Your task to perform on an android device: Search for razer huntsman on newegg, select the first entry, add it to the cart, then select checkout. Image 0: 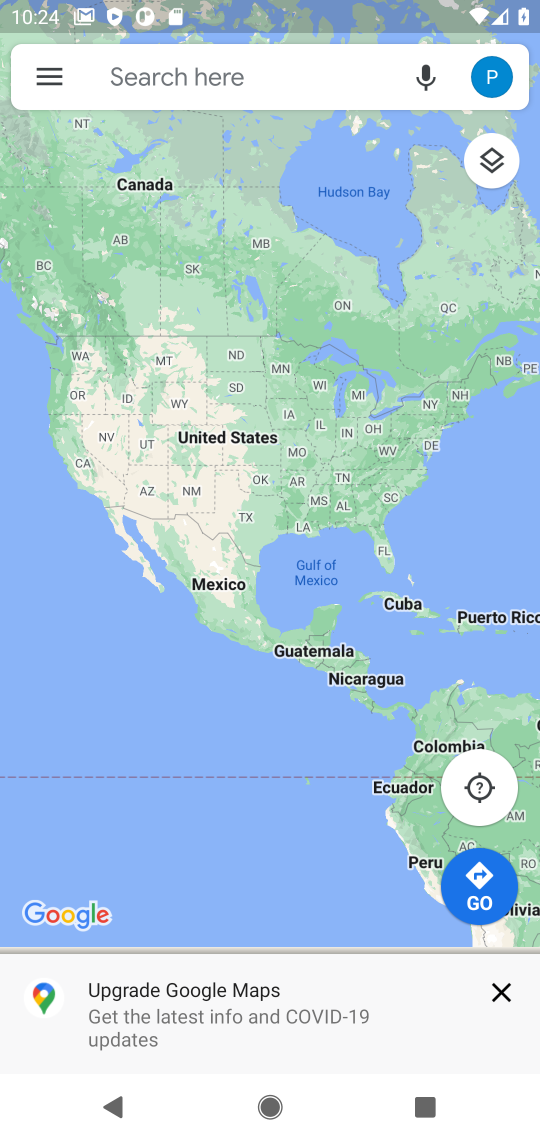
Step 0: press home button
Your task to perform on an android device: Search for razer huntsman on newegg, select the first entry, add it to the cart, then select checkout. Image 1: 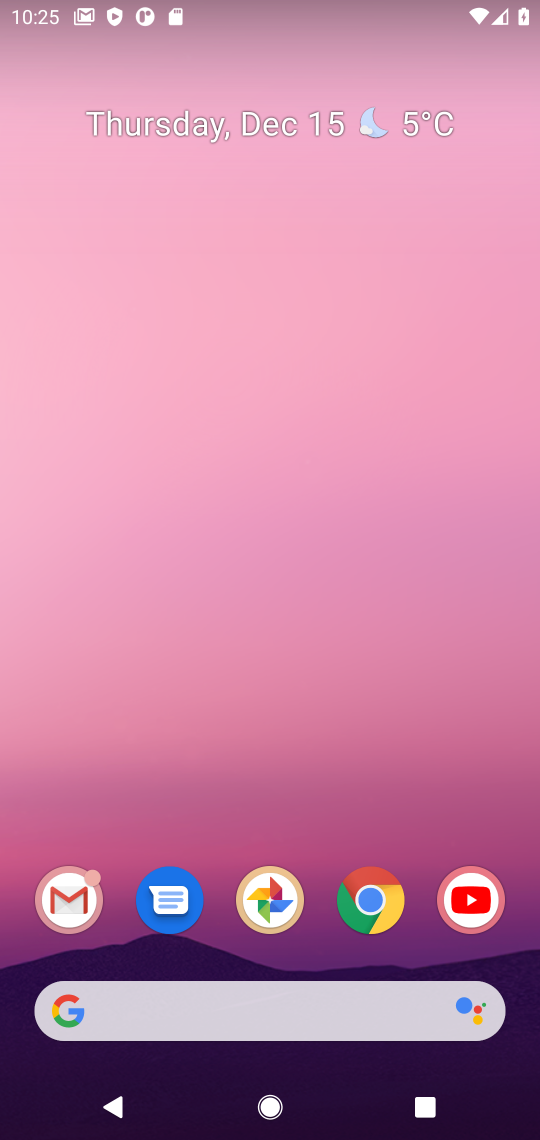
Step 1: click (363, 886)
Your task to perform on an android device: Search for razer huntsman on newegg, select the first entry, add it to the cart, then select checkout. Image 2: 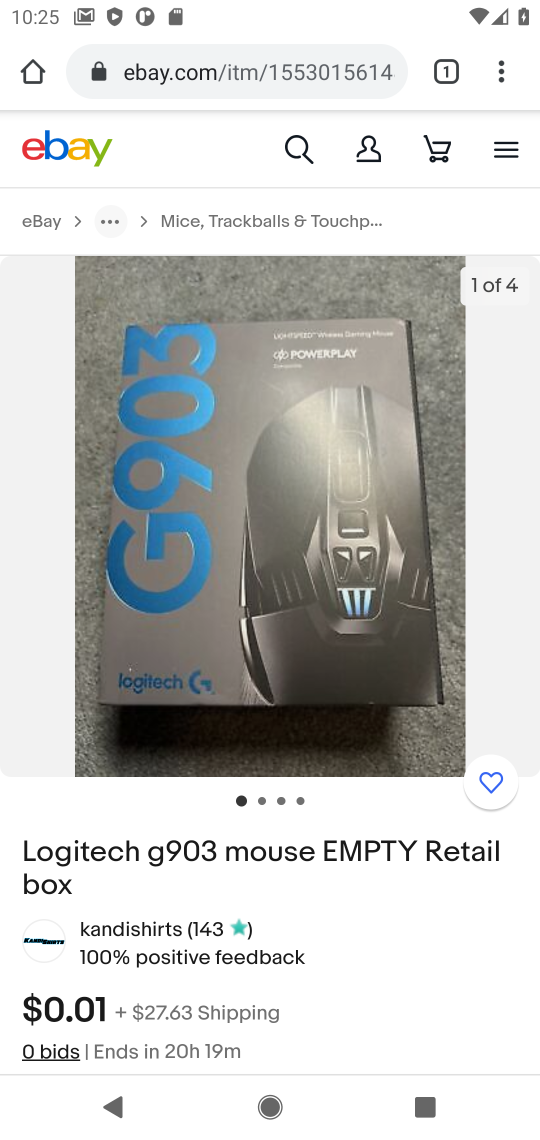
Step 2: click (173, 81)
Your task to perform on an android device: Search for razer huntsman on newegg, select the first entry, add it to the cart, then select checkout. Image 3: 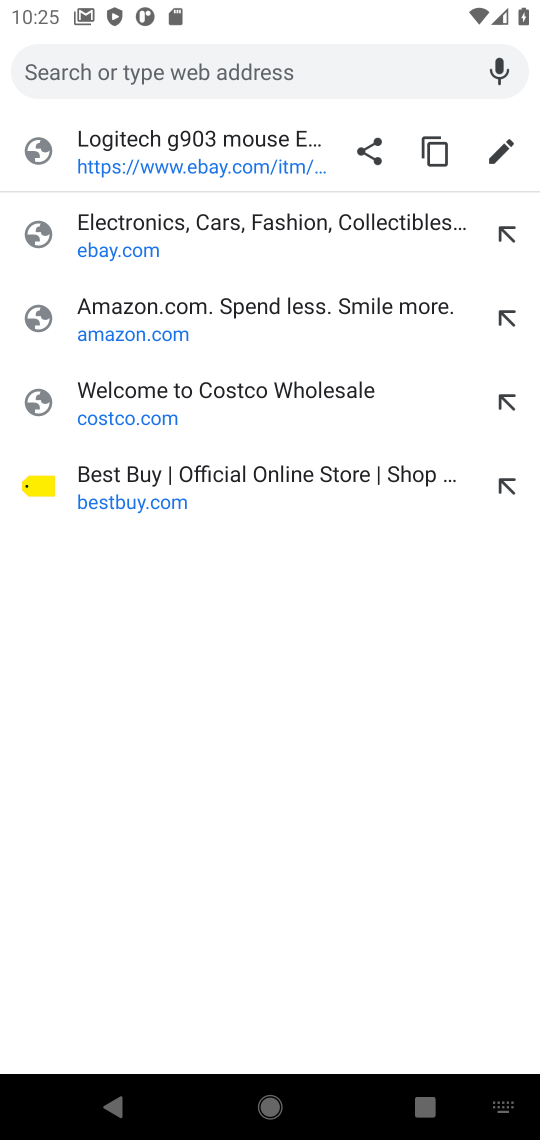
Step 3: type "newegg"
Your task to perform on an android device: Search for razer huntsman on newegg, select the first entry, add it to the cart, then select checkout. Image 4: 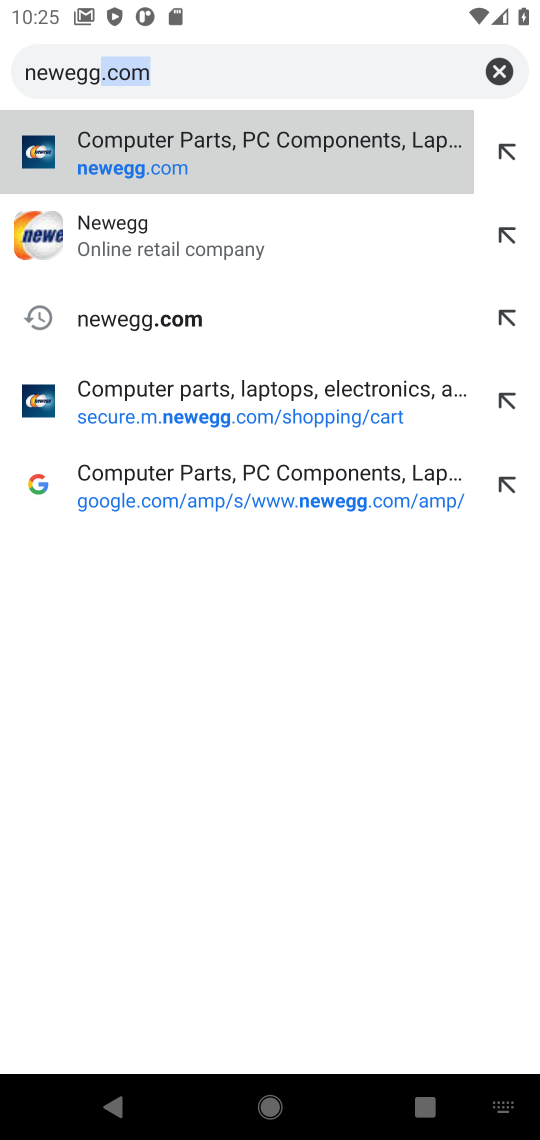
Step 4: click (154, 151)
Your task to perform on an android device: Search for razer huntsman on newegg, select the first entry, add it to the cart, then select checkout. Image 5: 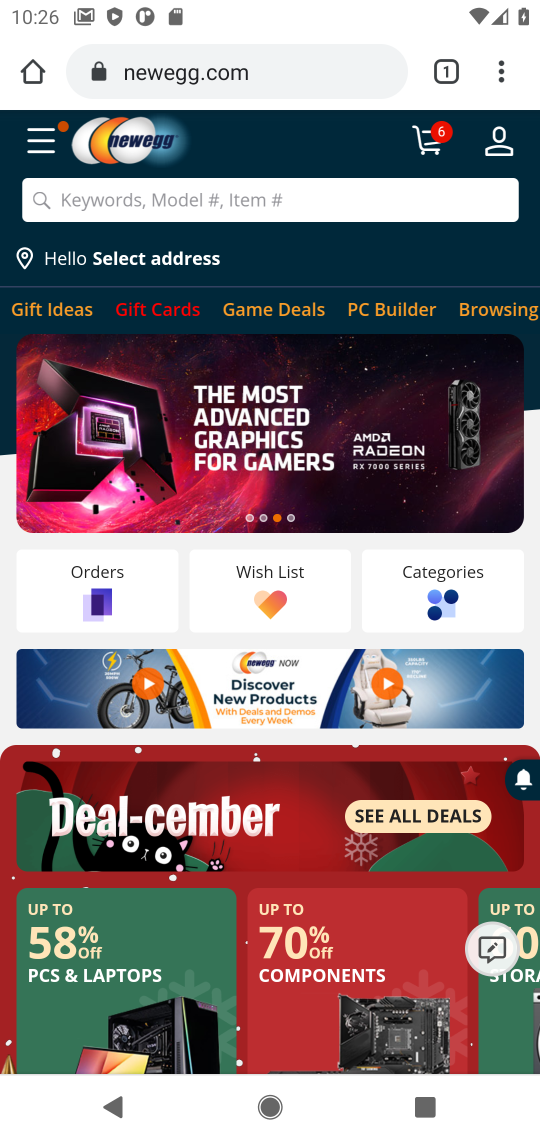
Step 5: click (175, 209)
Your task to perform on an android device: Search for razer huntsman on newegg, select the first entry, add it to the cart, then select checkout. Image 6: 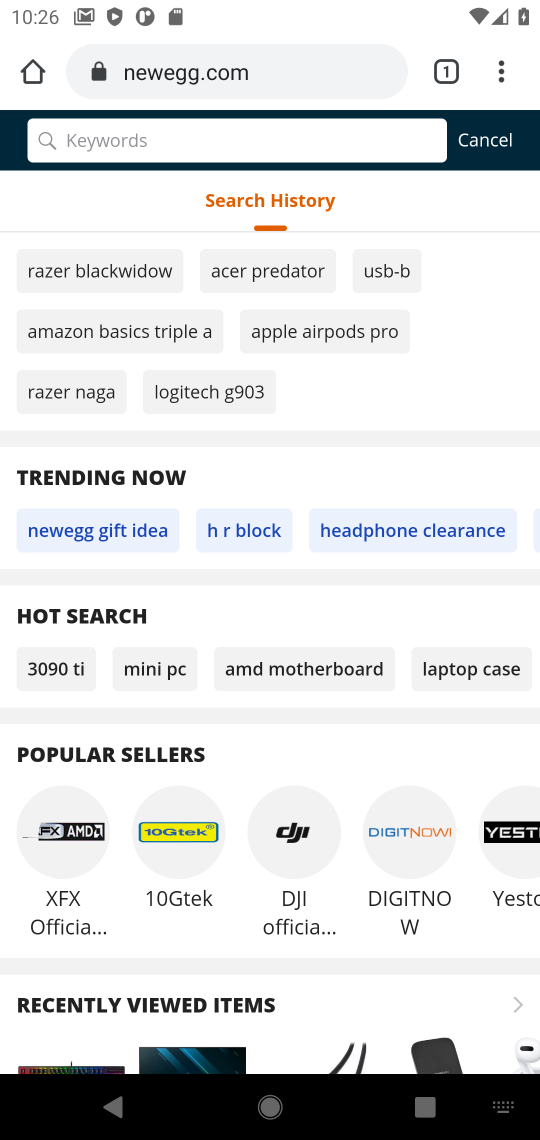
Step 6: type "razer huntsman"
Your task to perform on an android device: Search for razer huntsman on newegg, select the first entry, add it to the cart, then select checkout. Image 7: 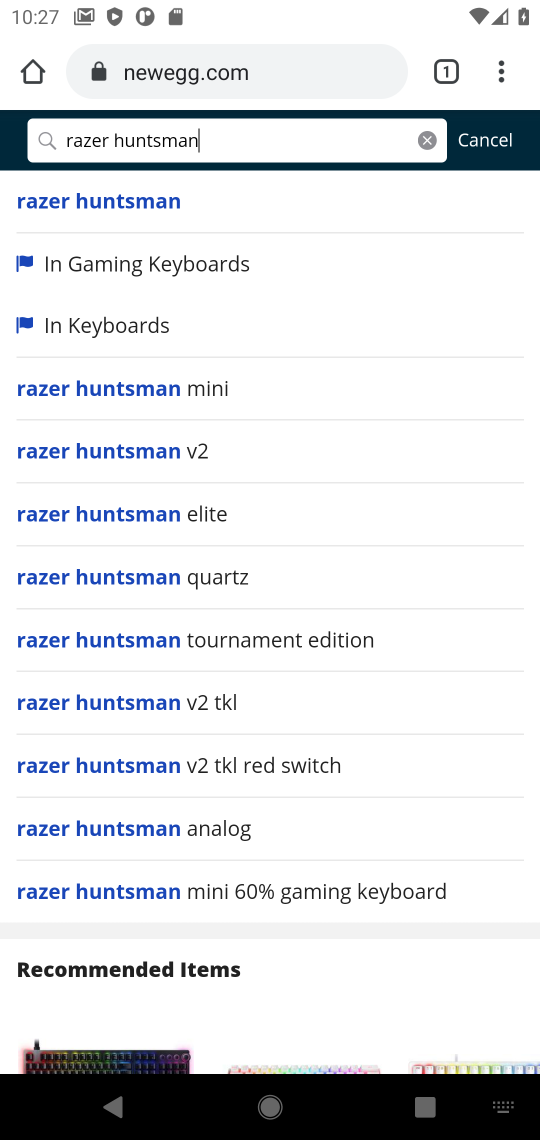
Step 7: press enter
Your task to perform on an android device: Search for razer huntsman on newegg, select the first entry, add it to the cart, then select checkout. Image 8: 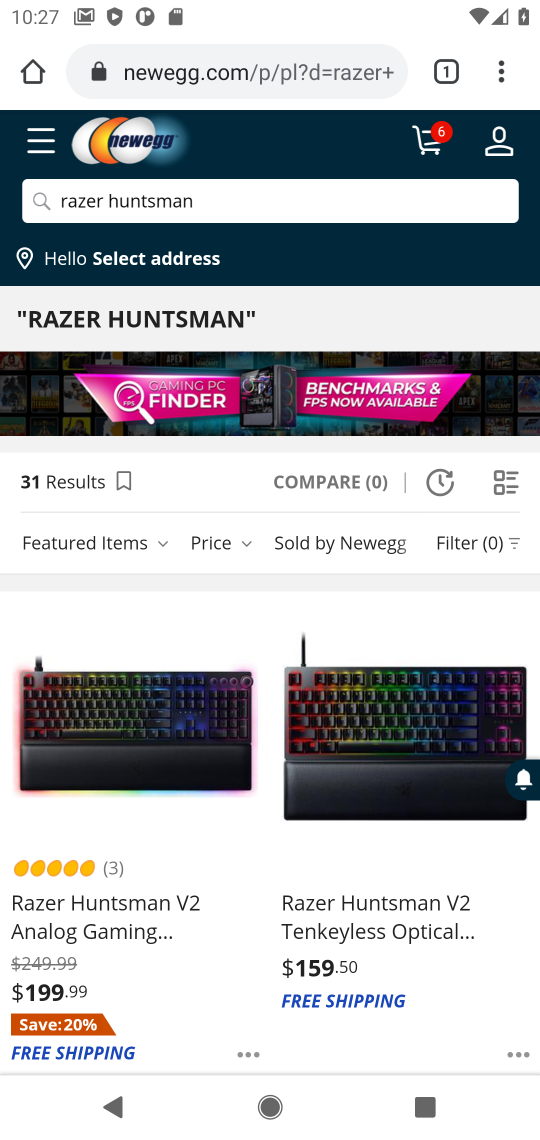
Step 8: click (159, 765)
Your task to perform on an android device: Search for razer huntsman on newegg, select the first entry, add it to the cart, then select checkout. Image 9: 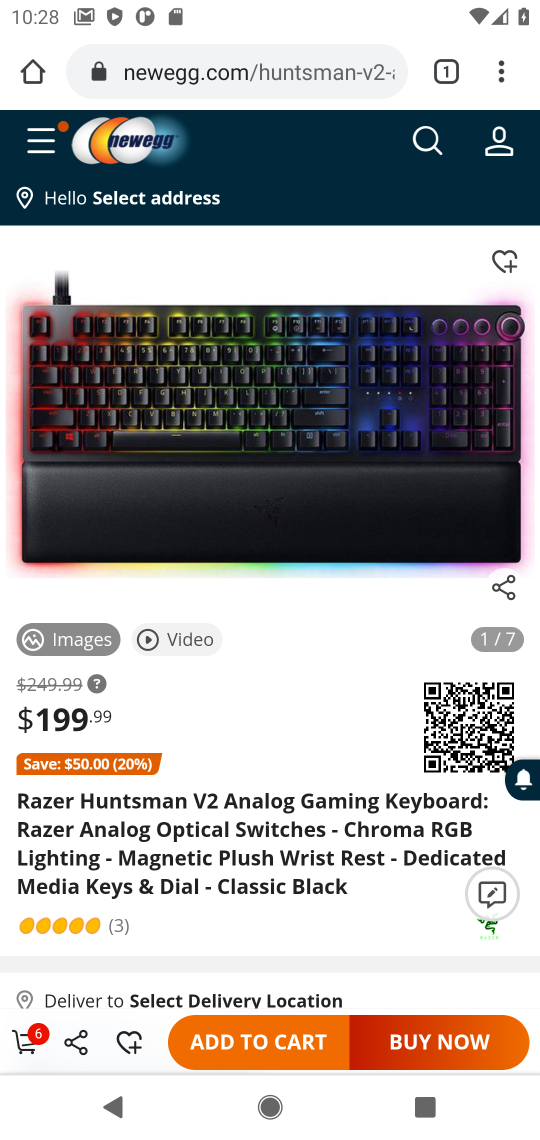
Step 9: click (280, 1054)
Your task to perform on an android device: Search for razer huntsman on newegg, select the first entry, add it to the cart, then select checkout. Image 10: 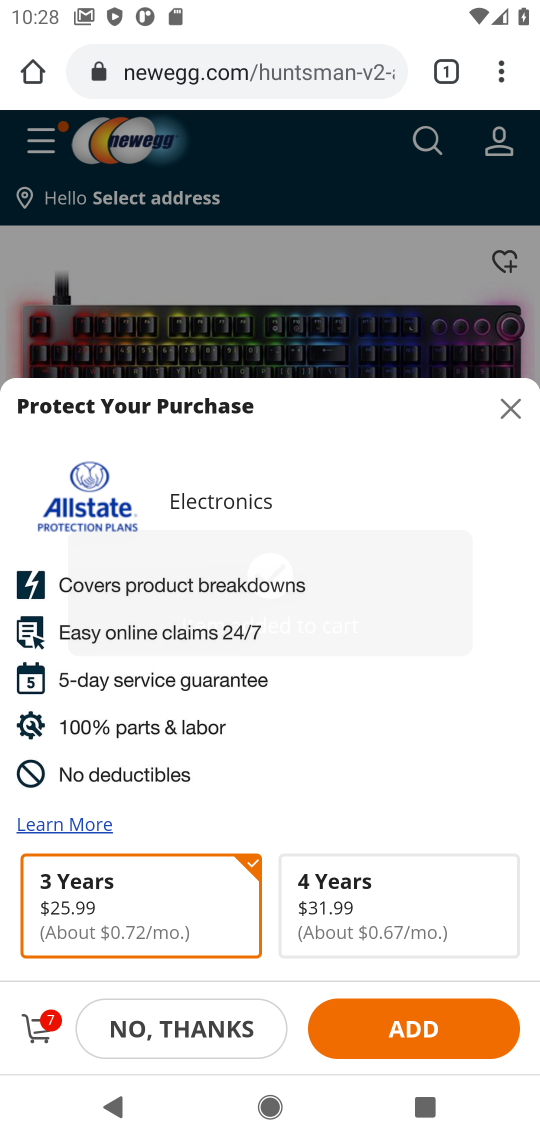
Step 10: click (407, 1029)
Your task to perform on an android device: Search for razer huntsman on newegg, select the first entry, add it to the cart, then select checkout. Image 11: 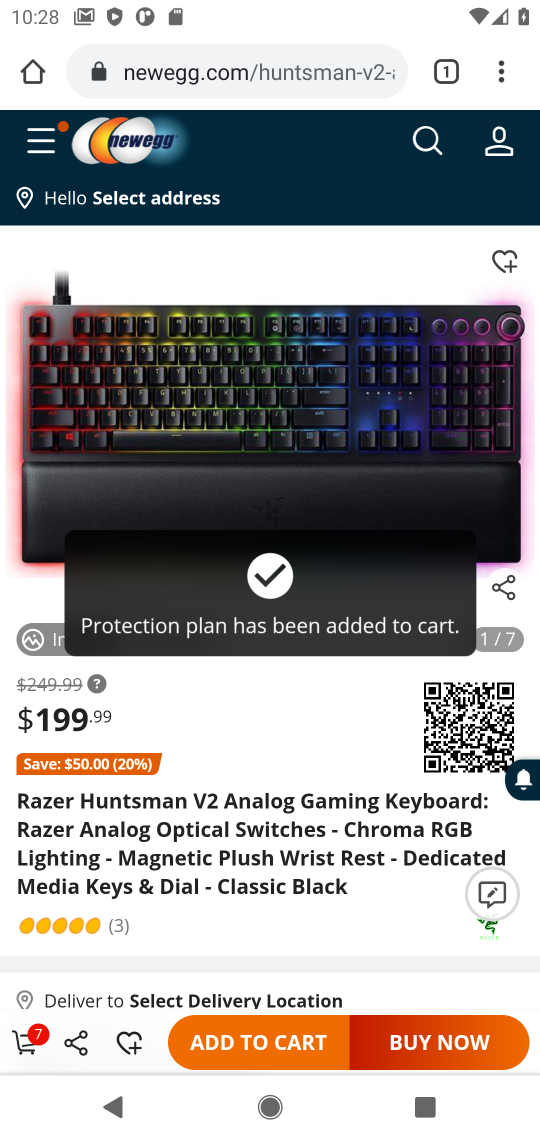
Step 11: click (30, 1038)
Your task to perform on an android device: Search for razer huntsman on newegg, select the first entry, add it to the cart, then select checkout. Image 12: 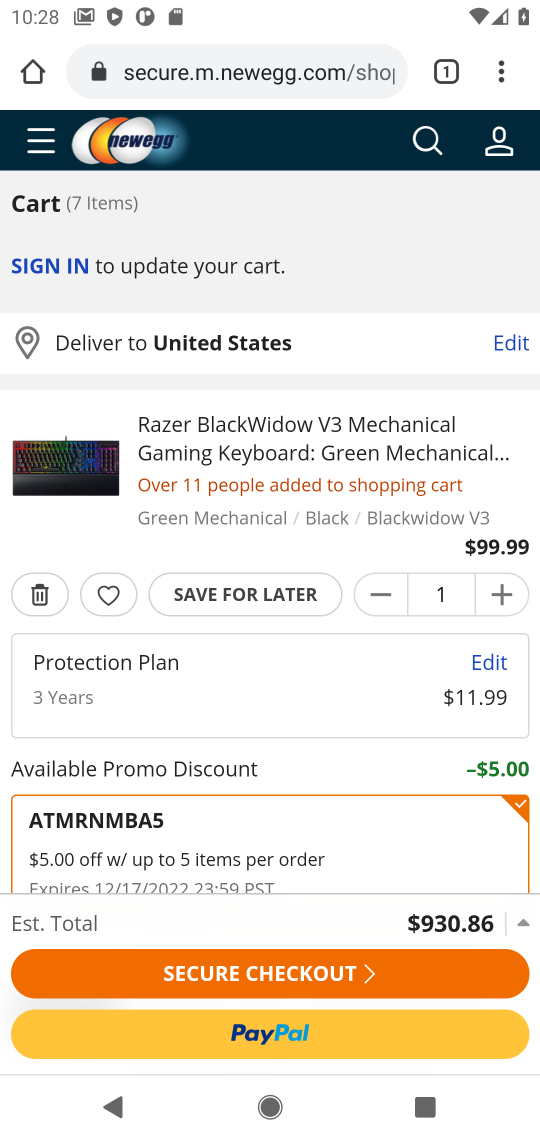
Step 12: click (196, 1030)
Your task to perform on an android device: Search for razer huntsman on newegg, select the first entry, add it to the cart, then select checkout. Image 13: 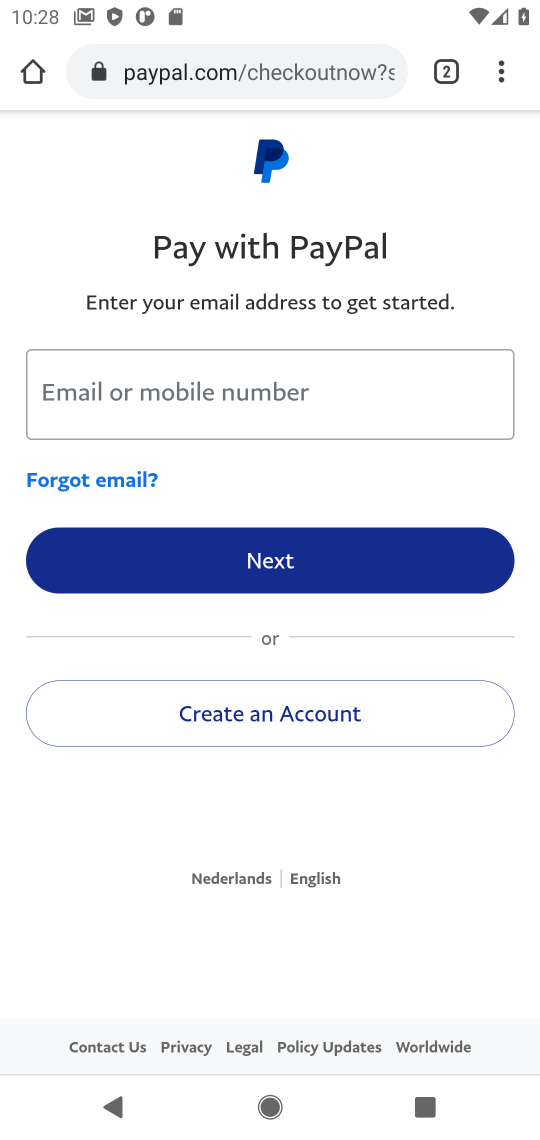
Step 13: task complete